Your task to perform on an android device: Open Youtube and go to the subscriptions tab Image 0: 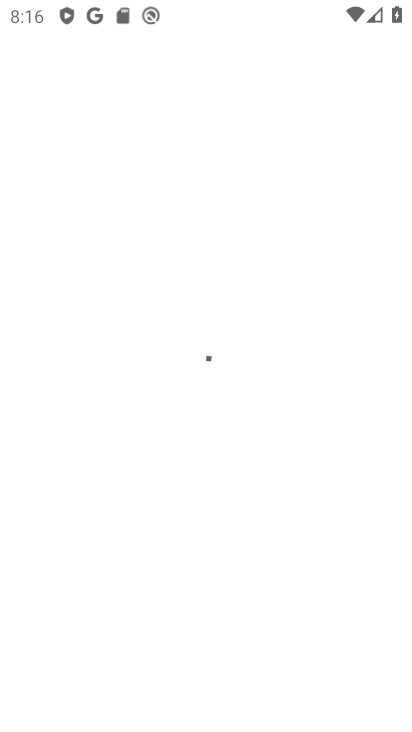
Step 0: press home button
Your task to perform on an android device: Open Youtube and go to the subscriptions tab Image 1: 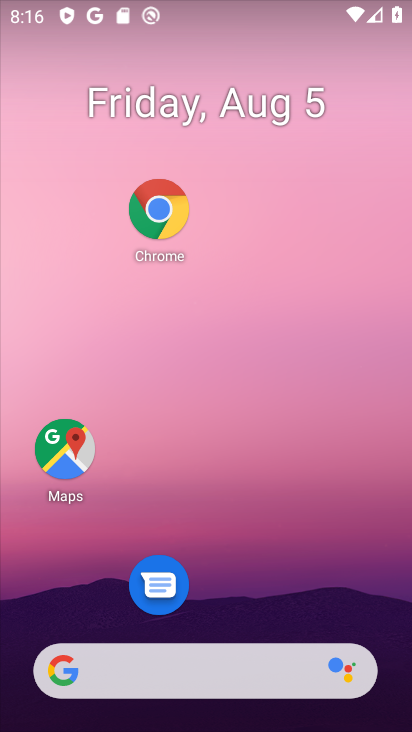
Step 1: drag from (198, 643) to (281, 16)
Your task to perform on an android device: Open Youtube and go to the subscriptions tab Image 2: 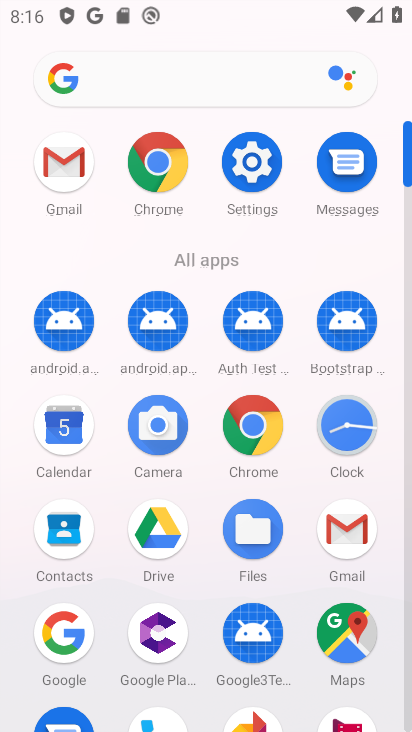
Step 2: drag from (206, 582) to (384, 21)
Your task to perform on an android device: Open Youtube and go to the subscriptions tab Image 3: 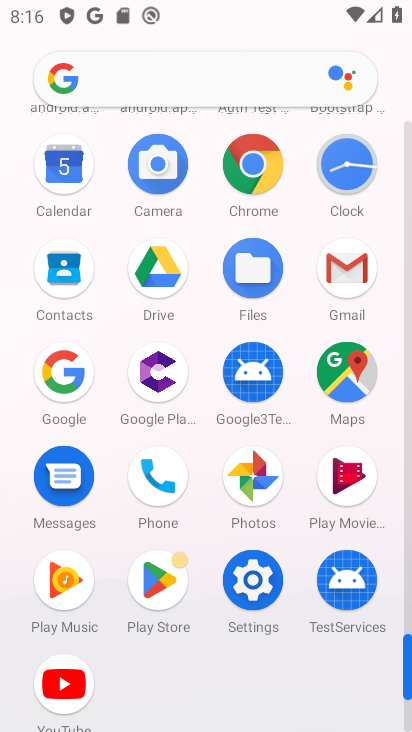
Step 3: click (58, 686)
Your task to perform on an android device: Open Youtube and go to the subscriptions tab Image 4: 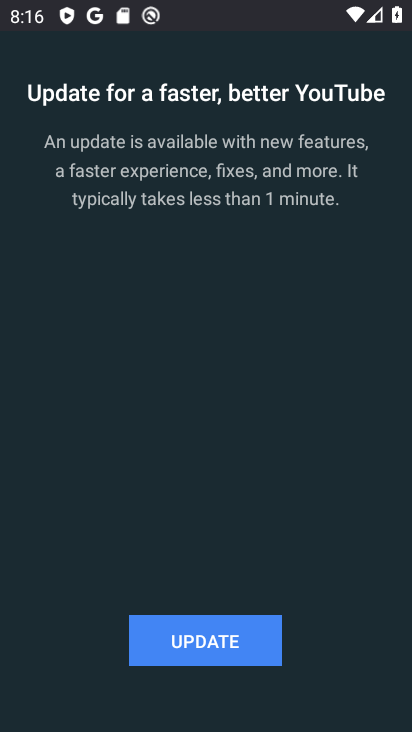
Step 4: click (165, 660)
Your task to perform on an android device: Open Youtube and go to the subscriptions tab Image 5: 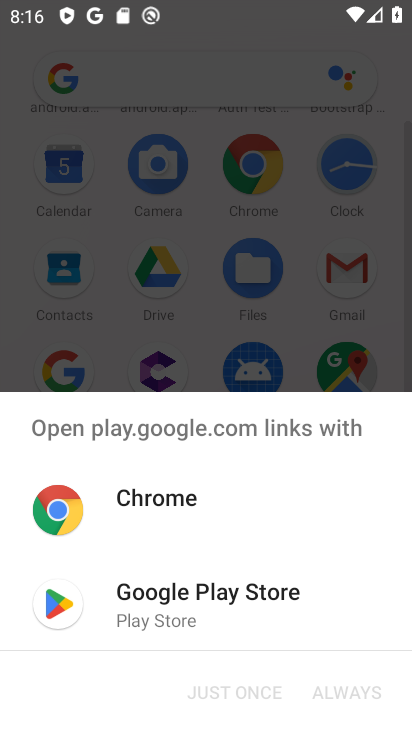
Step 5: click (131, 633)
Your task to perform on an android device: Open Youtube and go to the subscriptions tab Image 6: 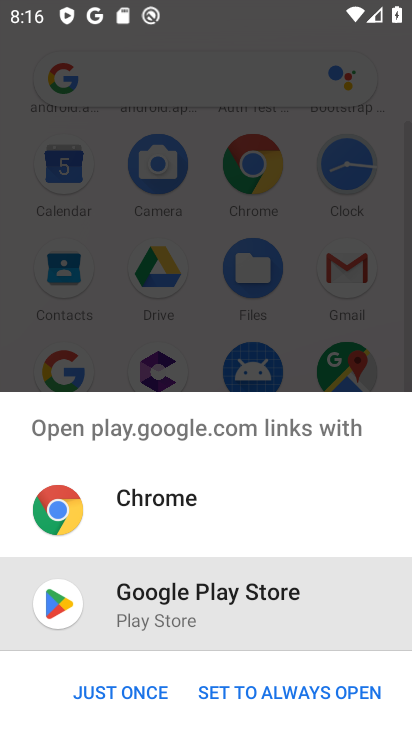
Step 6: click (126, 692)
Your task to perform on an android device: Open Youtube and go to the subscriptions tab Image 7: 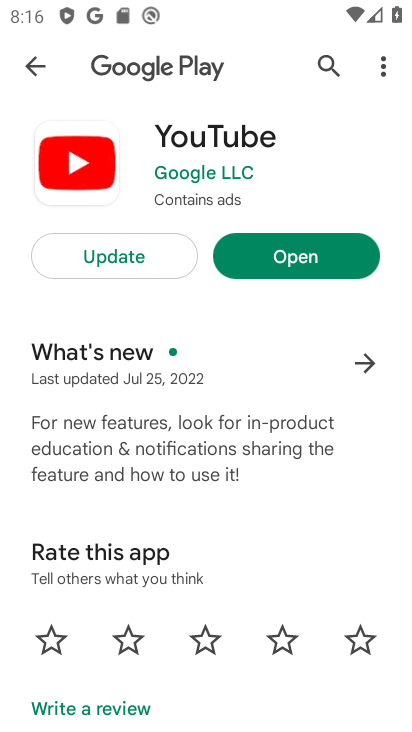
Step 7: click (96, 242)
Your task to perform on an android device: Open Youtube and go to the subscriptions tab Image 8: 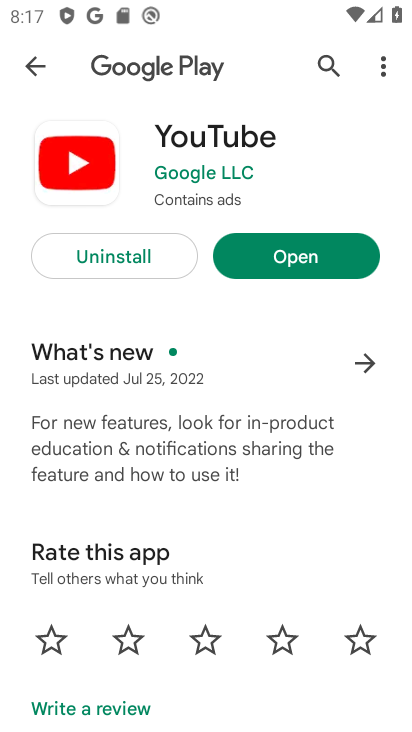
Step 8: click (319, 241)
Your task to perform on an android device: Open Youtube and go to the subscriptions tab Image 9: 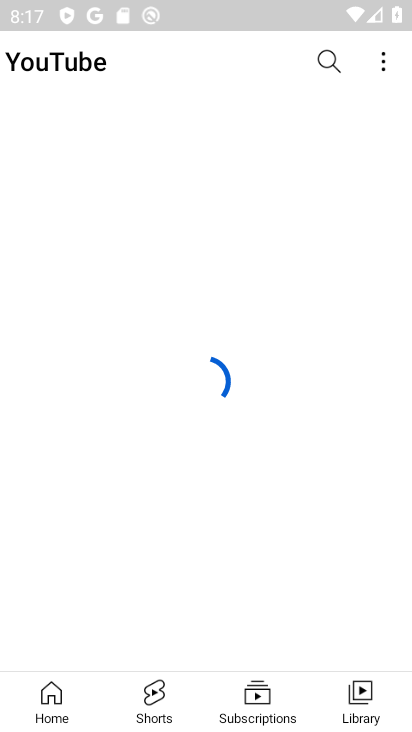
Step 9: click (292, 702)
Your task to perform on an android device: Open Youtube and go to the subscriptions tab Image 10: 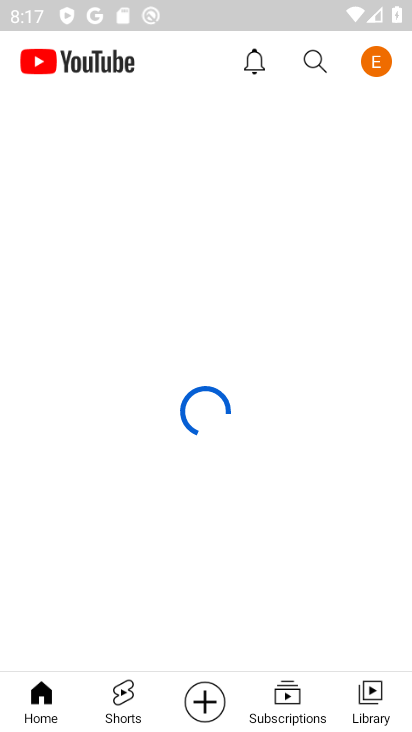
Step 10: task complete